Your task to perform on an android device: turn notification dots on Image 0: 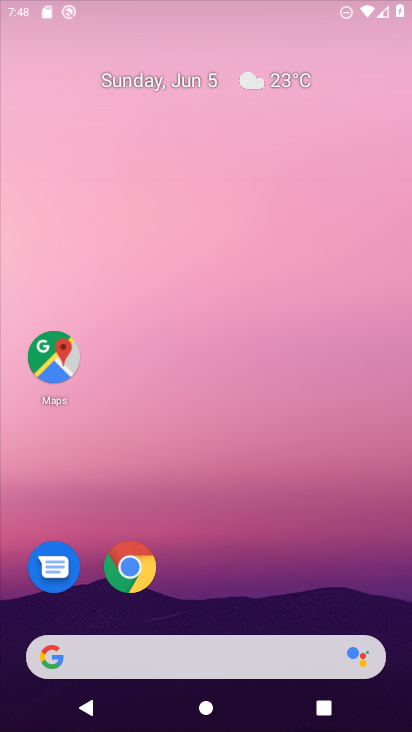
Step 0: drag from (368, 570) to (191, 6)
Your task to perform on an android device: turn notification dots on Image 1: 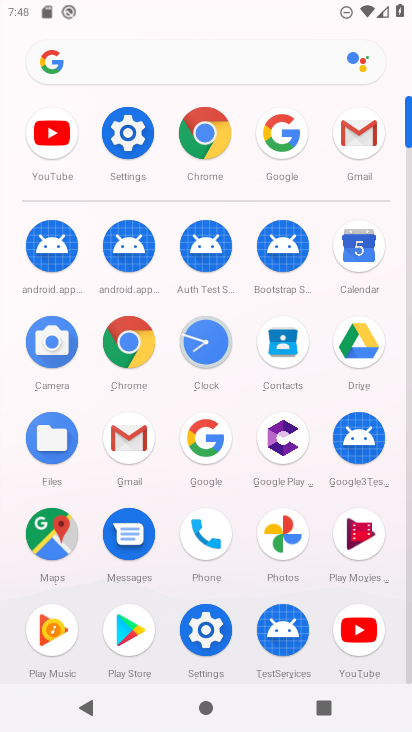
Step 1: click (135, 176)
Your task to perform on an android device: turn notification dots on Image 2: 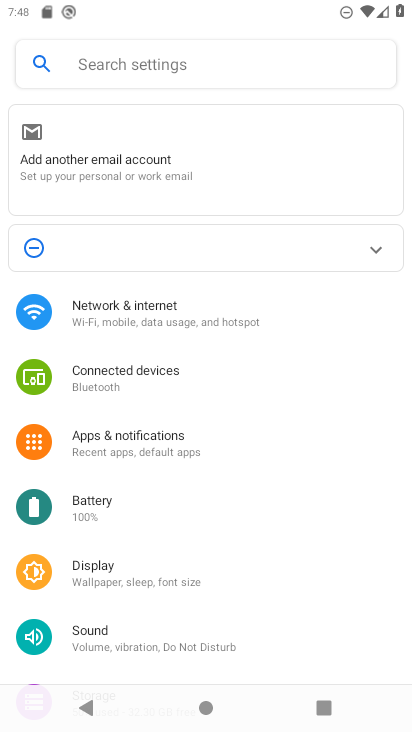
Step 2: click (130, 442)
Your task to perform on an android device: turn notification dots on Image 3: 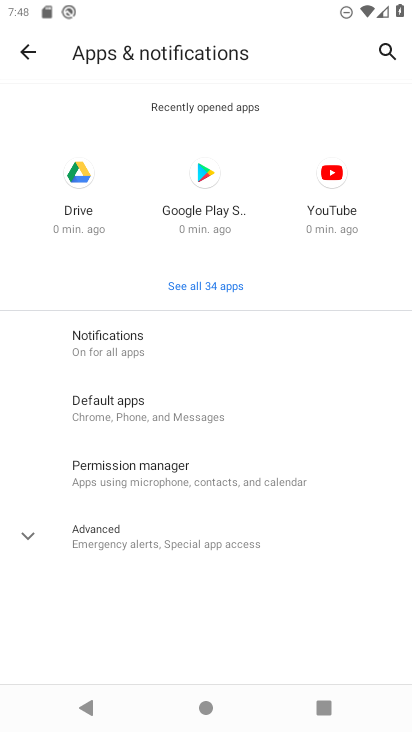
Step 3: click (157, 360)
Your task to perform on an android device: turn notification dots on Image 4: 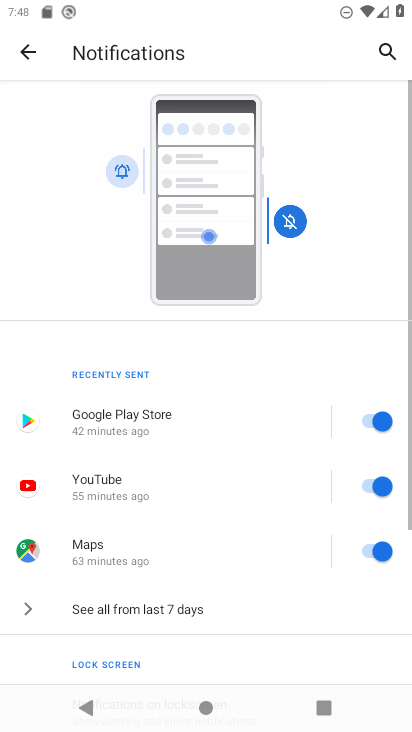
Step 4: drag from (200, 590) to (187, 36)
Your task to perform on an android device: turn notification dots on Image 5: 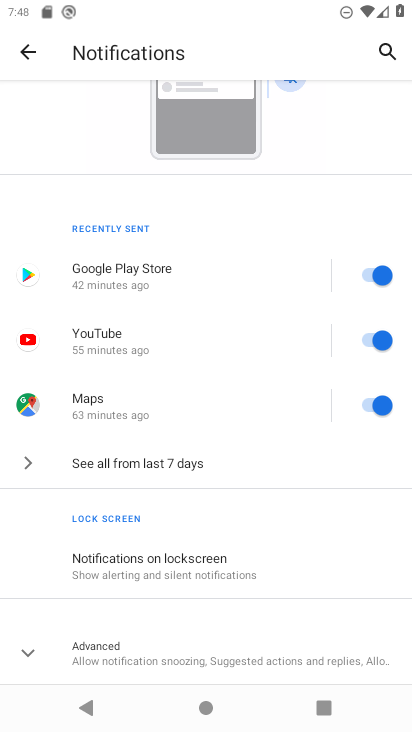
Step 5: click (155, 636)
Your task to perform on an android device: turn notification dots on Image 6: 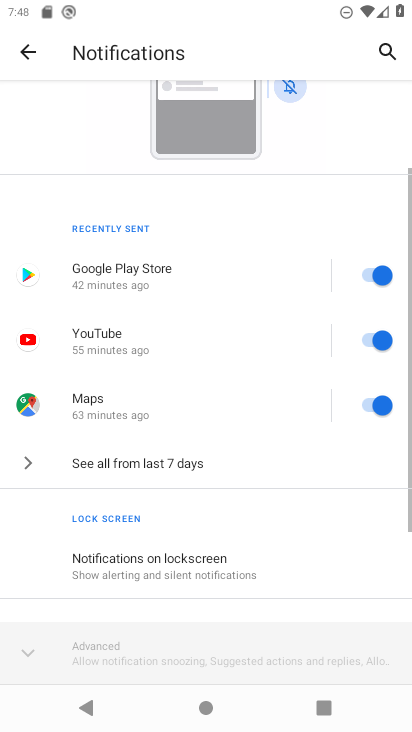
Step 6: drag from (266, 606) to (234, 19)
Your task to perform on an android device: turn notification dots on Image 7: 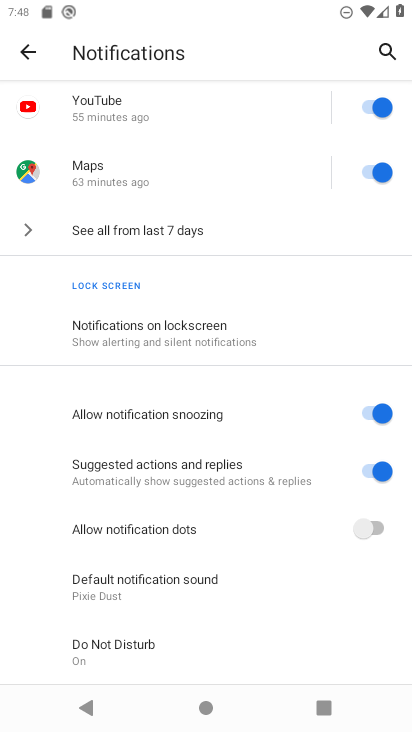
Step 7: click (332, 533)
Your task to perform on an android device: turn notification dots on Image 8: 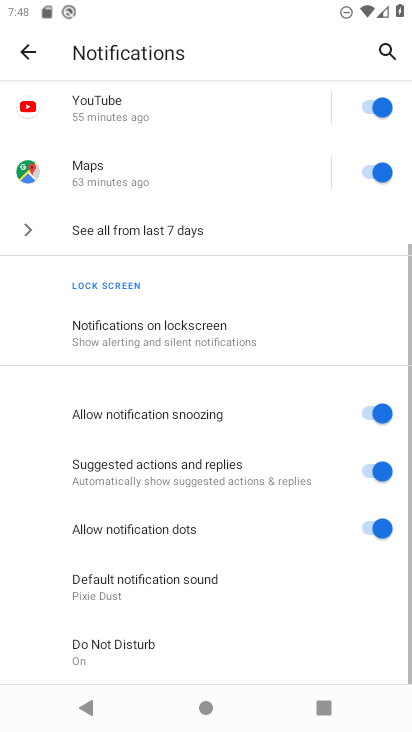
Step 8: task complete